Your task to perform on an android device: set default search engine in the chrome app Image 0: 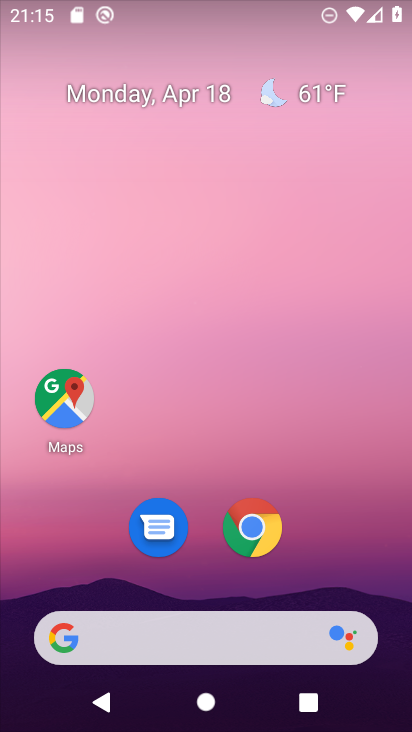
Step 0: click (264, 535)
Your task to perform on an android device: set default search engine in the chrome app Image 1: 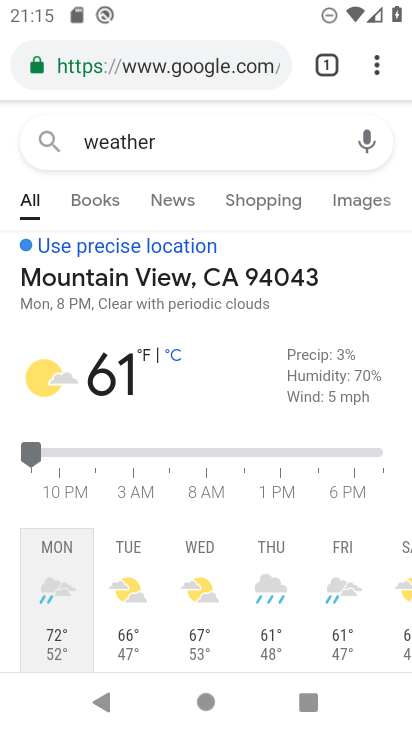
Step 1: click (374, 82)
Your task to perform on an android device: set default search engine in the chrome app Image 2: 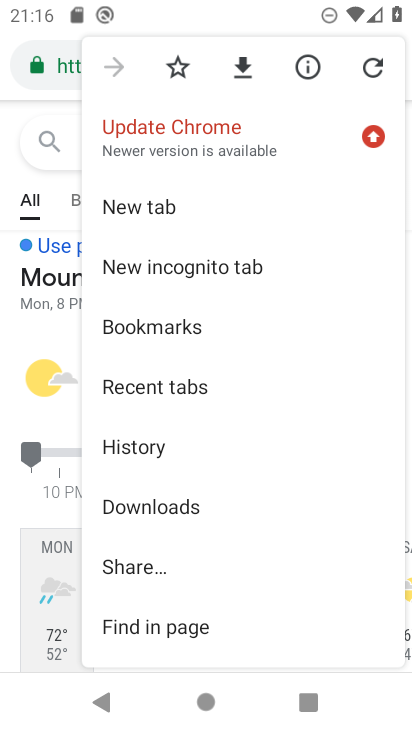
Step 2: drag from (116, 641) to (188, 92)
Your task to perform on an android device: set default search engine in the chrome app Image 3: 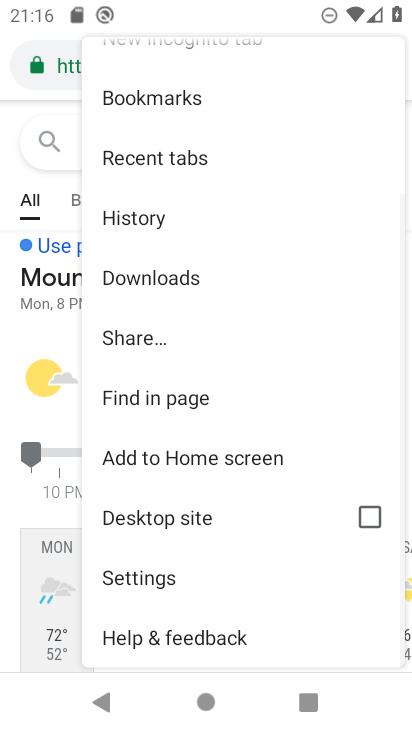
Step 3: click (152, 568)
Your task to perform on an android device: set default search engine in the chrome app Image 4: 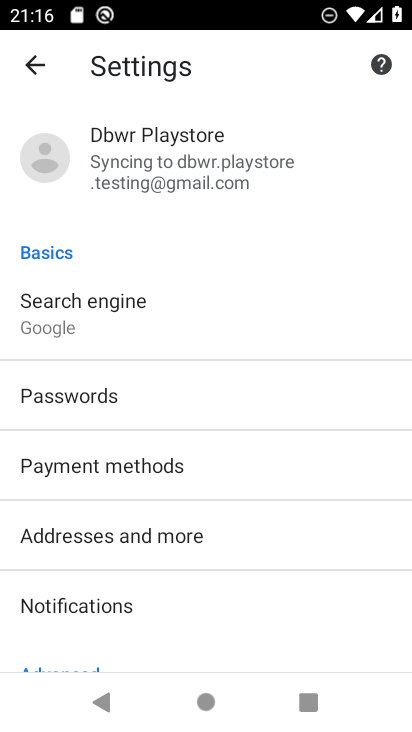
Step 4: click (168, 318)
Your task to perform on an android device: set default search engine in the chrome app Image 5: 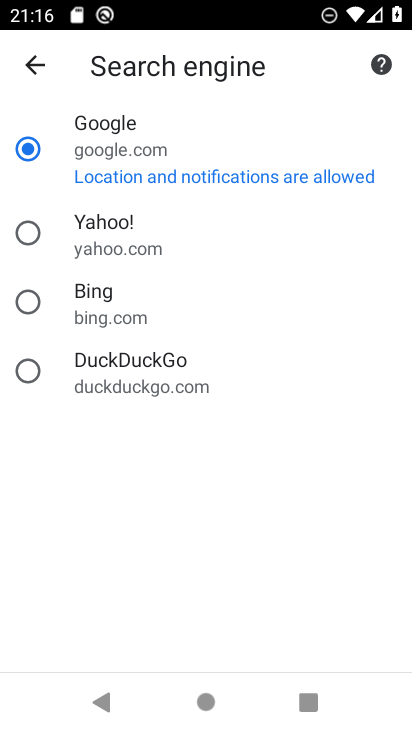
Step 5: click (128, 248)
Your task to perform on an android device: set default search engine in the chrome app Image 6: 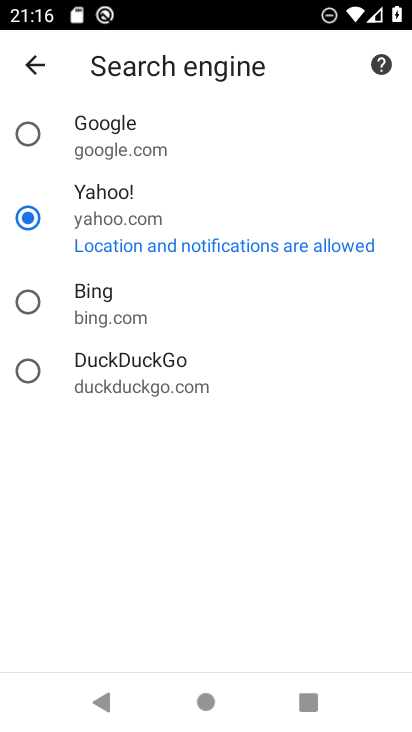
Step 6: task complete